Your task to perform on an android device: Search for vegetarian restaurants on Maps Image 0: 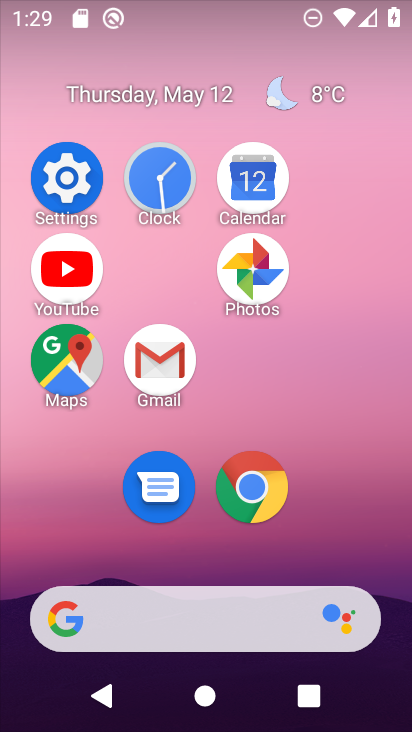
Step 0: click (75, 345)
Your task to perform on an android device: Search for vegetarian restaurants on Maps Image 1: 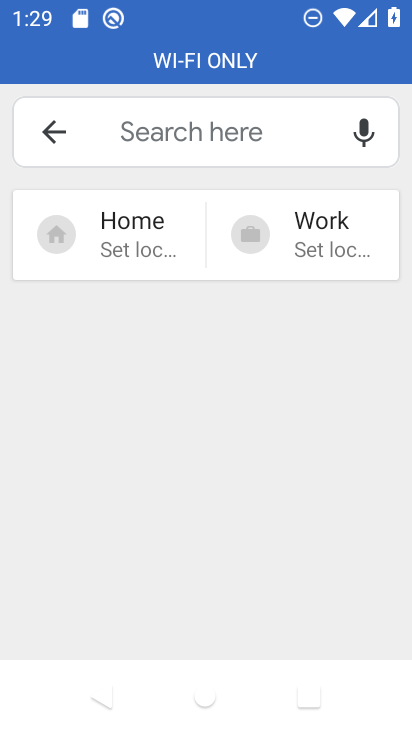
Step 1: click (221, 136)
Your task to perform on an android device: Search for vegetarian restaurants on Maps Image 2: 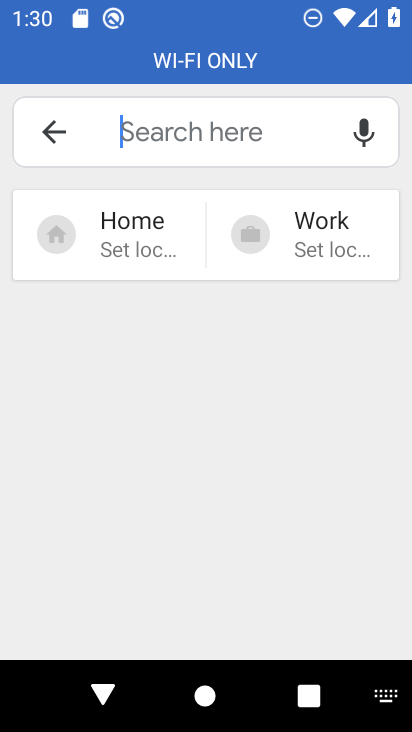
Step 2: type "vegetarian restaurants"
Your task to perform on an android device: Search for vegetarian restaurants on Maps Image 3: 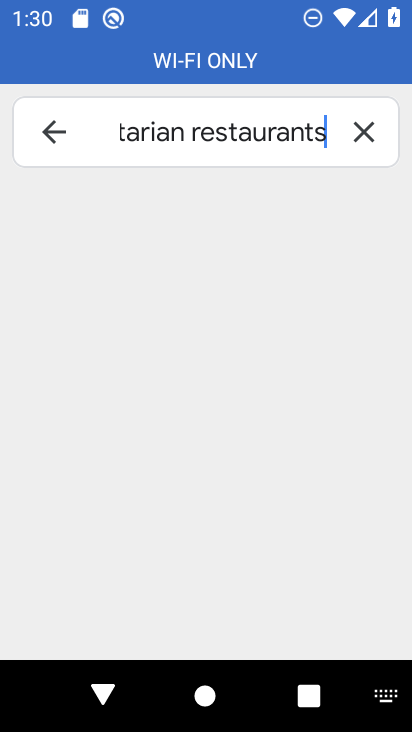
Step 3: task complete